Your task to perform on an android device: Search for Italian restaurants on Maps Image 0: 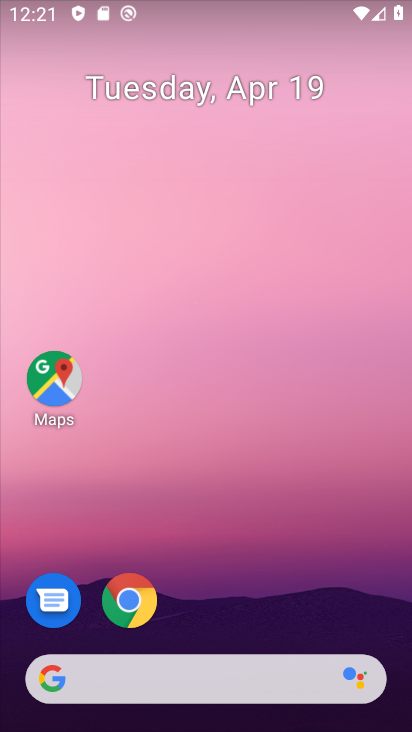
Step 0: drag from (241, 447) to (267, 52)
Your task to perform on an android device: Search for Italian restaurants on Maps Image 1: 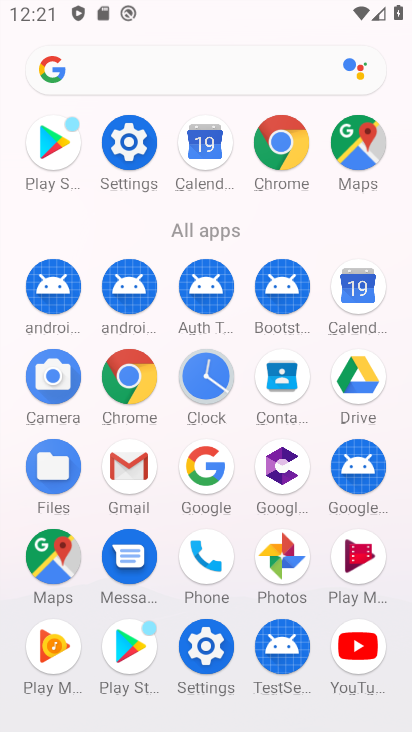
Step 1: click (350, 141)
Your task to perform on an android device: Search for Italian restaurants on Maps Image 2: 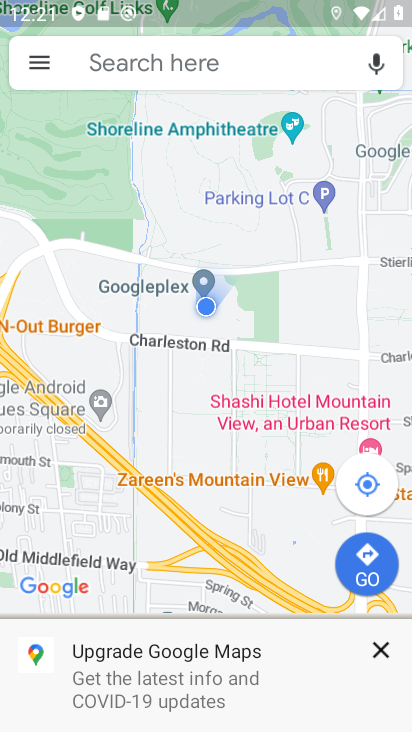
Step 2: click (247, 78)
Your task to perform on an android device: Search for Italian restaurants on Maps Image 3: 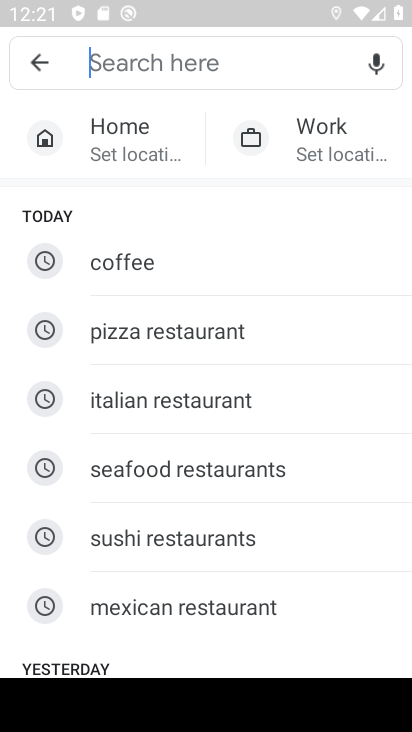
Step 3: click (163, 409)
Your task to perform on an android device: Search for Italian restaurants on Maps Image 4: 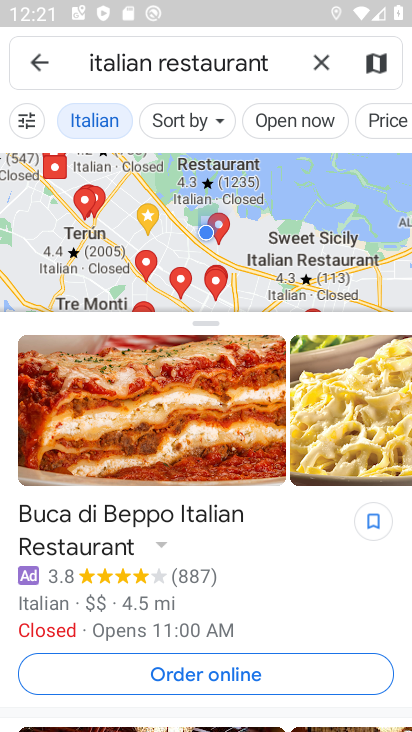
Step 4: task complete